Your task to perform on an android device: change keyboard looks Image 0: 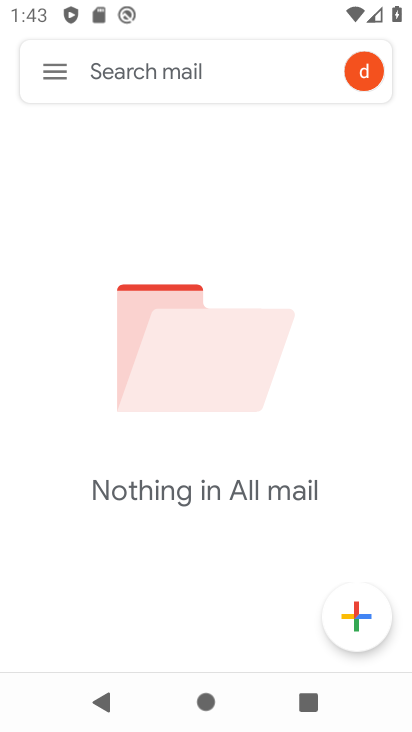
Step 0: press home button
Your task to perform on an android device: change keyboard looks Image 1: 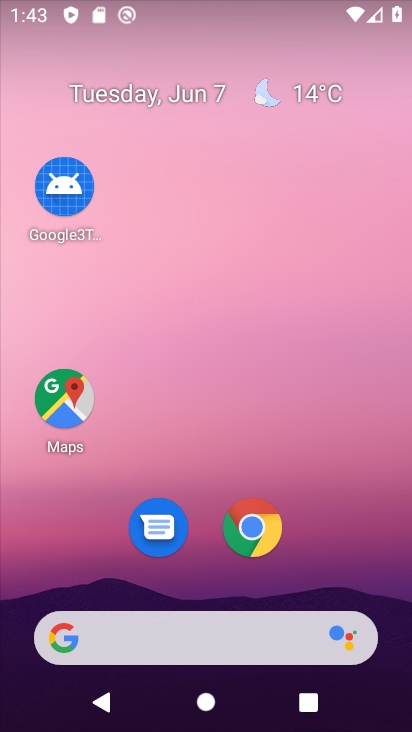
Step 1: drag from (326, 581) to (267, 42)
Your task to perform on an android device: change keyboard looks Image 2: 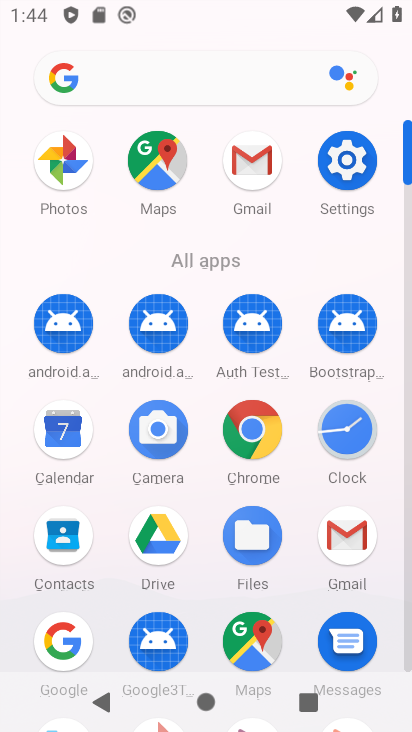
Step 2: click (344, 146)
Your task to perform on an android device: change keyboard looks Image 3: 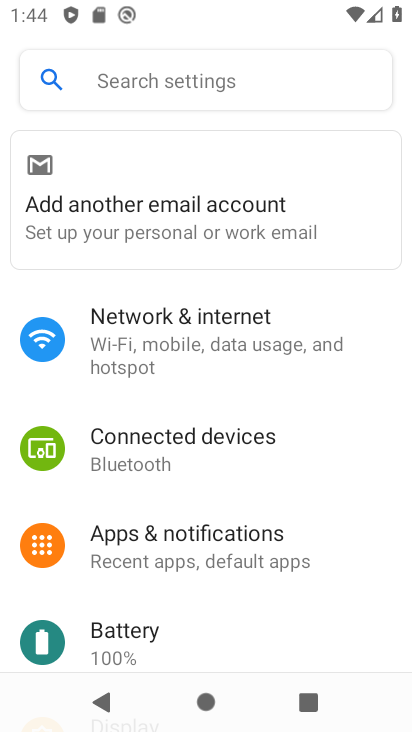
Step 3: drag from (224, 656) to (202, 205)
Your task to perform on an android device: change keyboard looks Image 4: 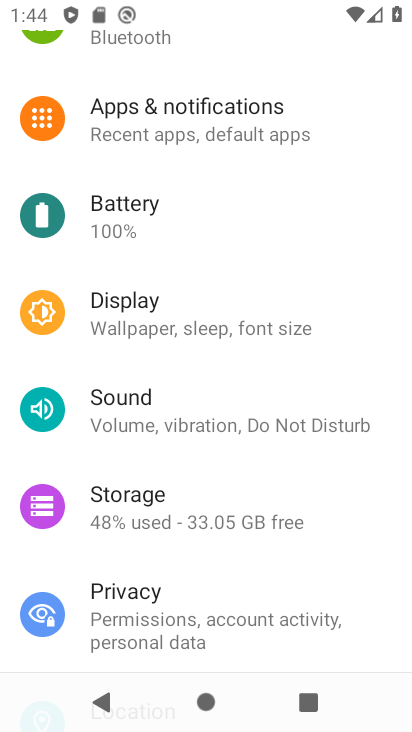
Step 4: drag from (163, 634) to (177, 64)
Your task to perform on an android device: change keyboard looks Image 5: 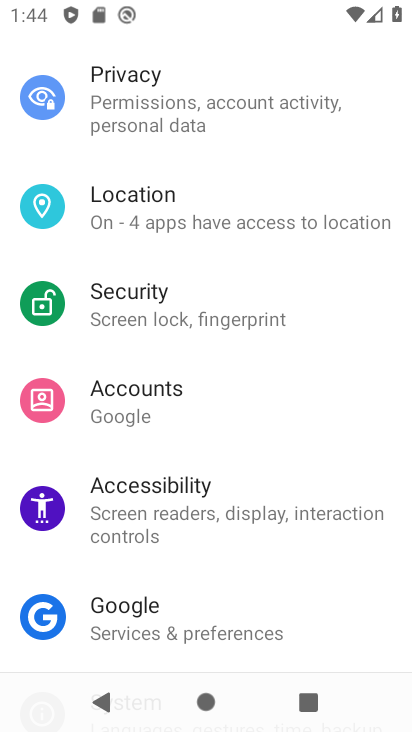
Step 5: drag from (189, 609) to (214, 177)
Your task to perform on an android device: change keyboard looks Image 6: 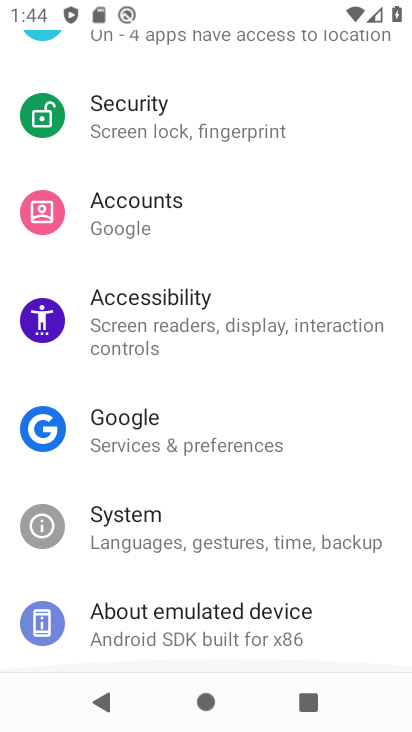
Step 6: click (214, 177)
Your task to perform on an android device: change keyboard looks Image 7: 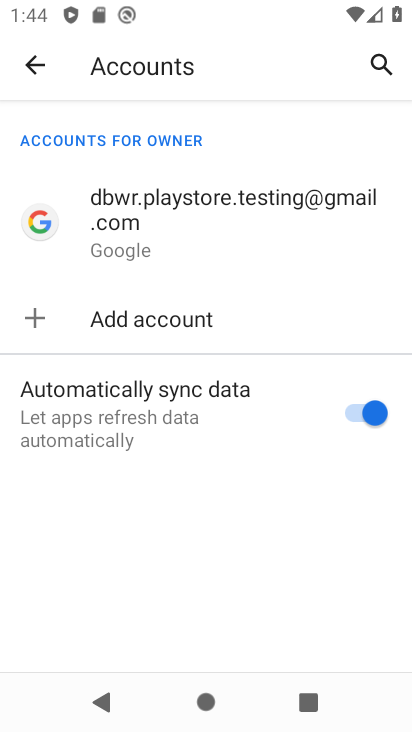
Step 7: click (43, 76)
Your task to perform on an android device: change keyboard looks Image 8: 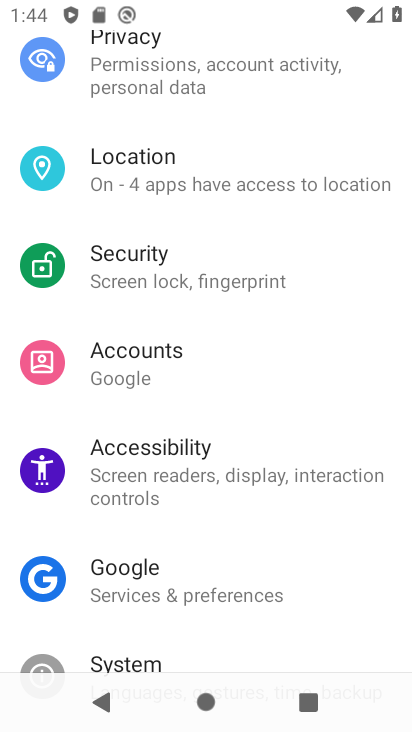
Step 8: click (177, 668)
Your task to perform on an android device: change keyboard looks Image 9: 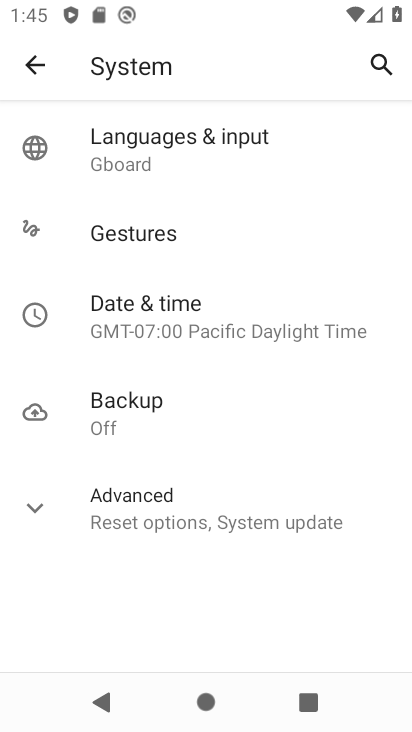
Step 9: click (189, 154)
Your task to perform on an android device: change keyboard looks Image 10: 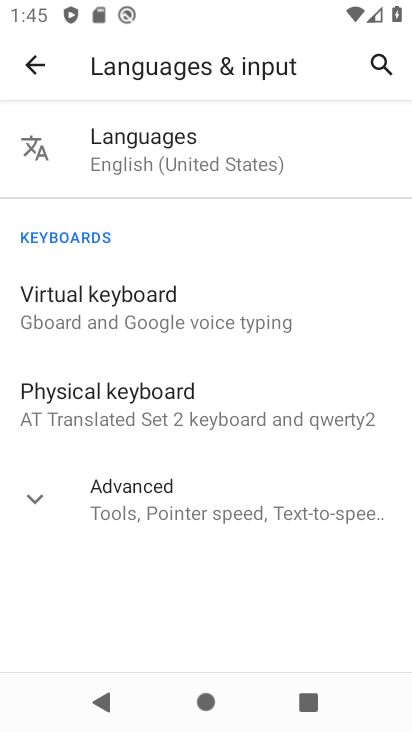
Step 10: click (137, 325)
Your task to perform on an android device: change keyboard looks Image 11: 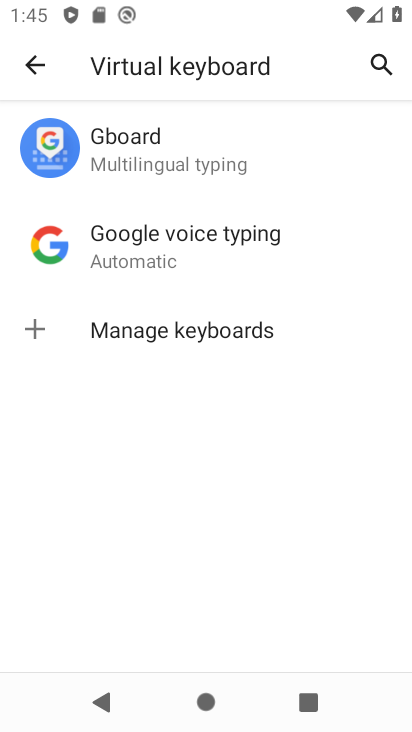
Step 11: click (142, 130)
Your task to perform on an android device: change keyboard looks Image 12: 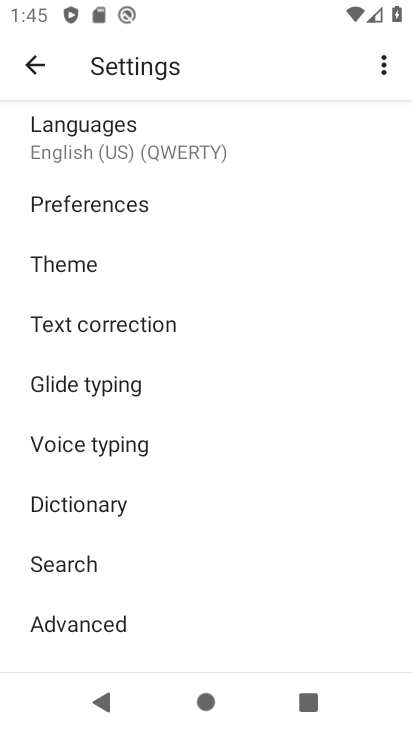
Step 12: click (75, 261)
Your task to perform on an android device: change keyboard looks Image 13: 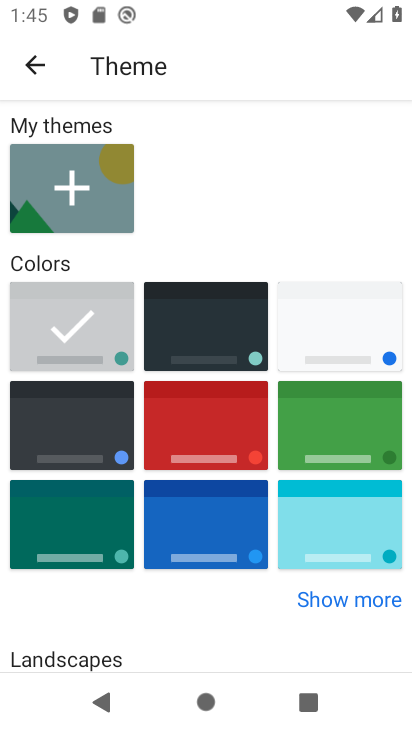
Step 13: click (202, 430)
Your task to perform on an android device: change keyboard looks Image 14: 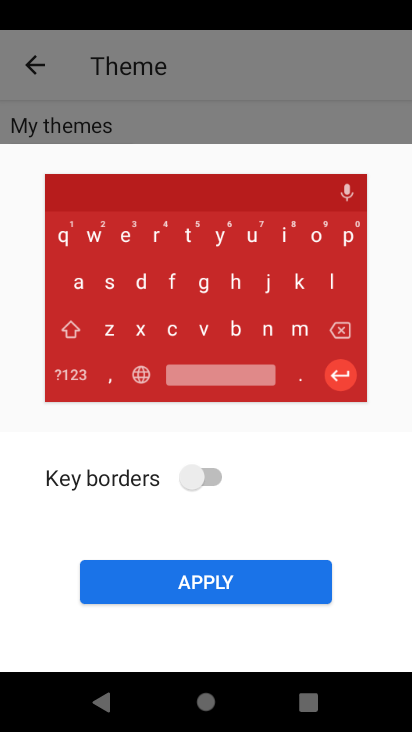
Step 14: click (321, 588)
Your task to perform on an android device: change keyboard looks Image 15: 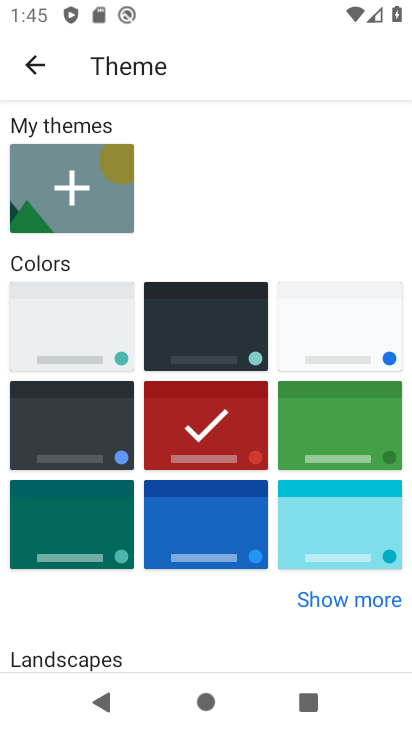
Step 15: task complete